Your task to perform on an android device: Open sound settings Image 0: 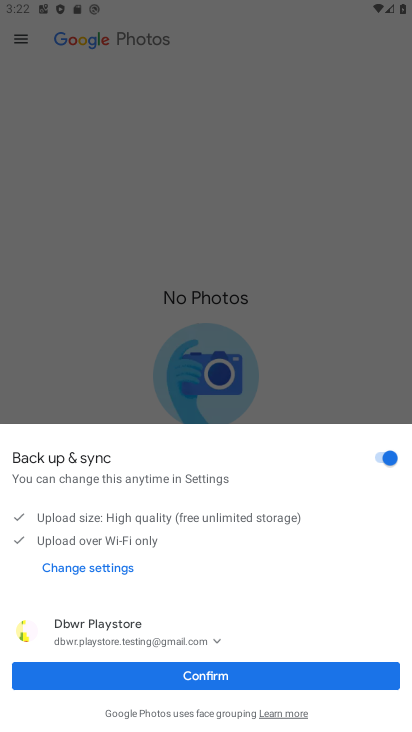
Step 0: press home button
Your task to perform on an android device: Open sound settings Image 1: 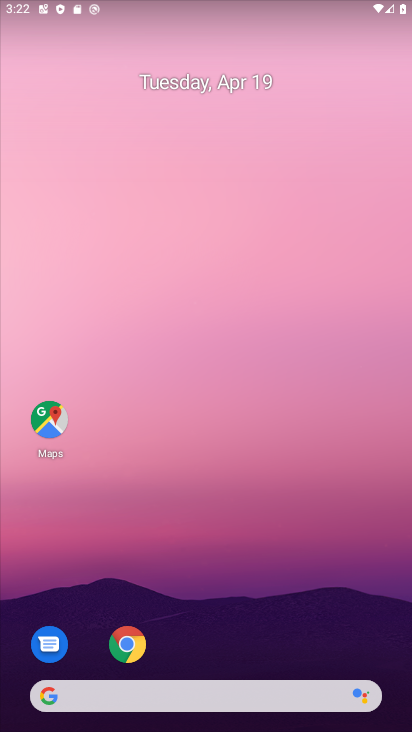
Step 1: drag from (381, 631) to (308, 230)
Your task to perform on an android device: Open sound settings Image 2: 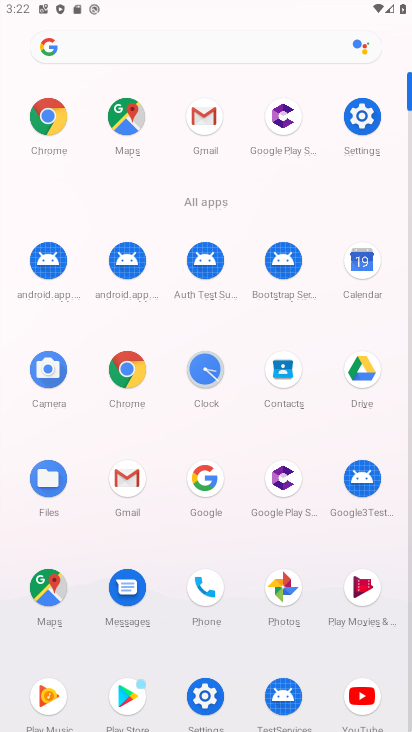
Step 2: click (357, 123)
Your task to perform on an android device: Open sound settings Image 3: 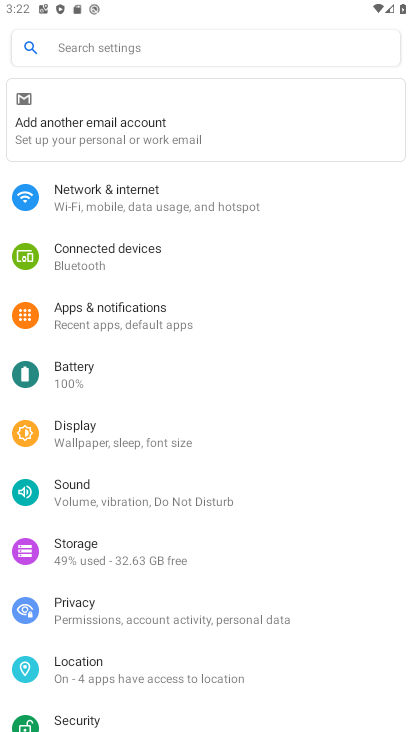
Step 3: click (74, 487)
Your task to perform on an android device: Open sound settings Image 4: 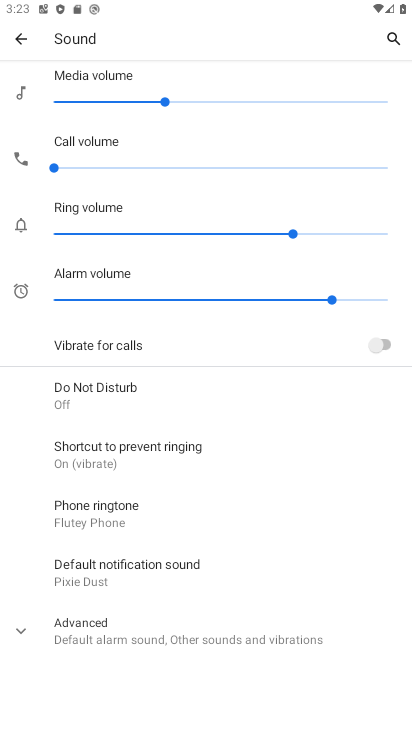
Step 4: task complete